Your task to perform on an android device: Open Maps and search for coffee Image 0: 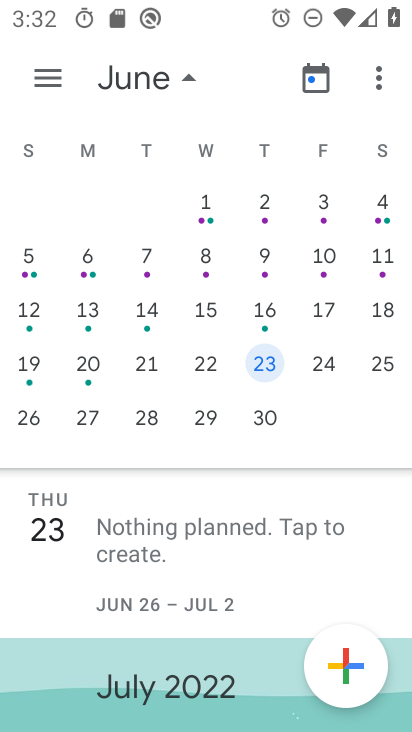
Step 0: drag from (199, 535) to (318, 360)
Your task to perform on an android device: Open Maps and search for coffee Image 1: 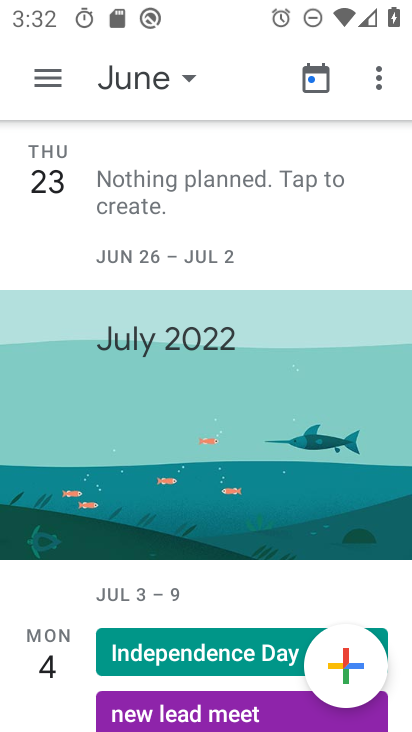
Step 1: drag from (223, 608) to (386, 102)
Your task to perform on an android device: Open Maps and search for coffee Image 2: 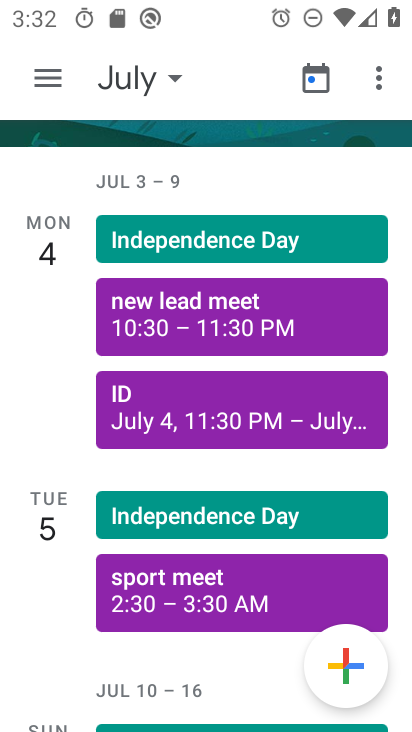
Step 2: drag from (176, 645) to (265, 255)
Your task to perform on an android device: Open Maps and search for coffee Image 3: 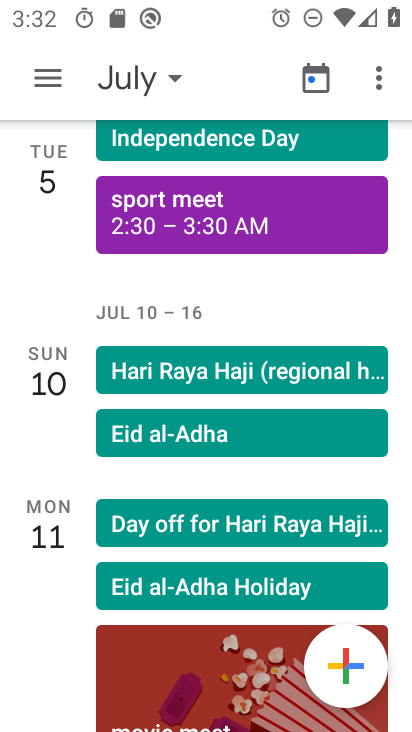
Step 3: press home button
Your task to perform on an android device: Open Maps and search for coffee Image 4: 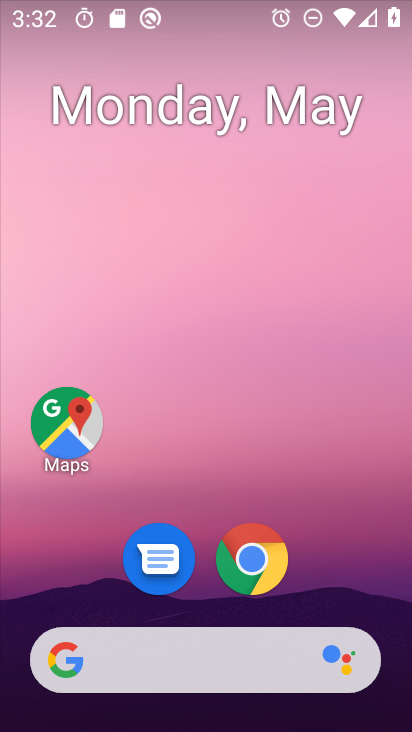
Step 4: drag from (205, 606) to (278, 174)
Your task to perform on an android device: Open Maps and search for coffee Image 5: 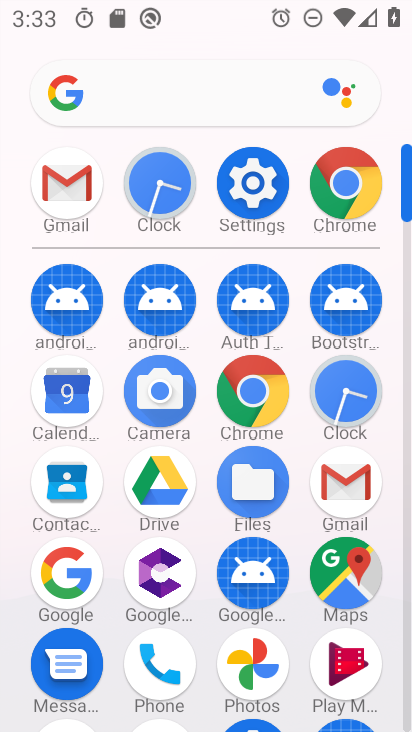
Step 5: drag from (208, 619) to (200, 133)
Your task to perform on an android device: Open Maps and search for coffee Image 6: 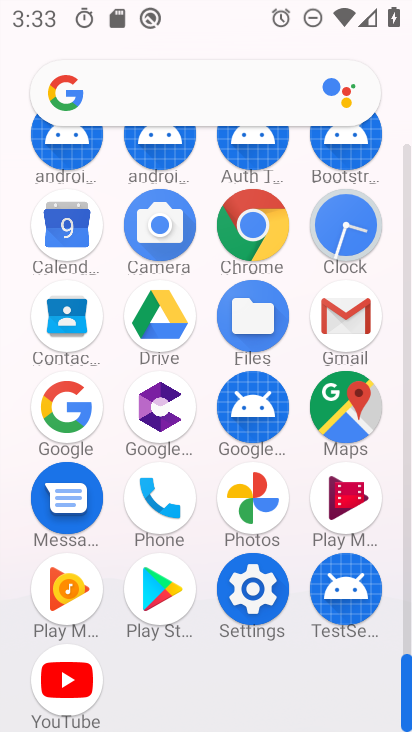
Step 6: click (348, 410)
Your task to perform on an android device: Open Maps and search for coffee Image 7: 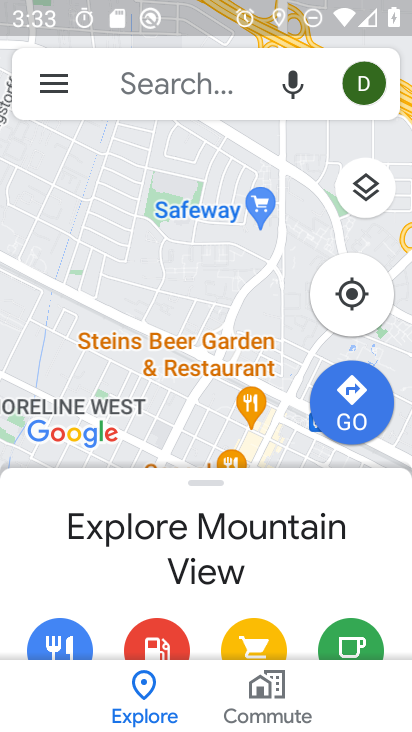
Step 7: drag from (245, 584) to (323, 147)
Your task to perform on an android device: Open Maps and search for coffee Image 8: 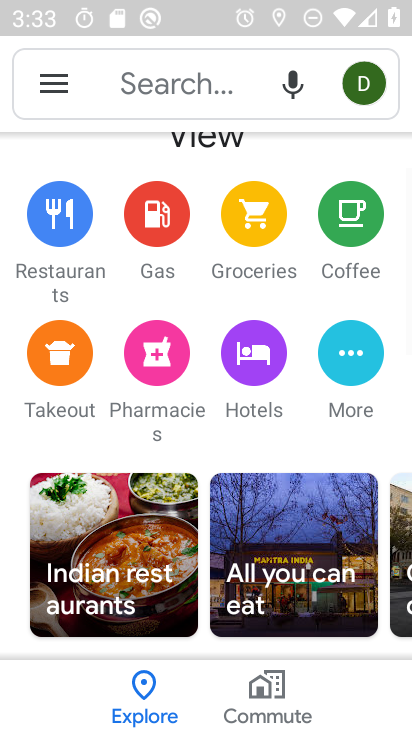
Step 8: click (172, 89)
Your task to perform on an android device: Open Maps and search for coffee Image 9: 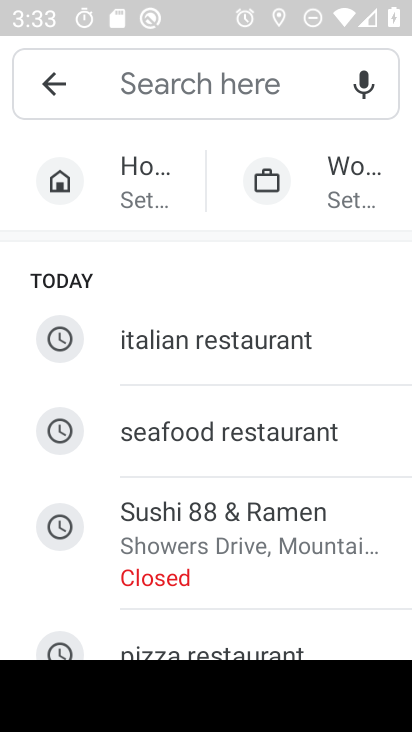
Step 9: drag from (223, 585) to (262, 252)
Your task to perform on an android device: Open Maps and search for coffee Image 10: 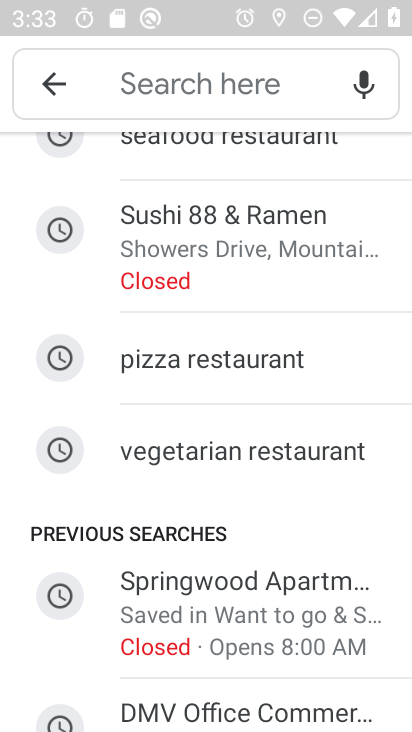
Step 10: drag from (206, 530) to (229, 187)
Your task to perform on an android device: Open Maps and search for coffee Image 11: 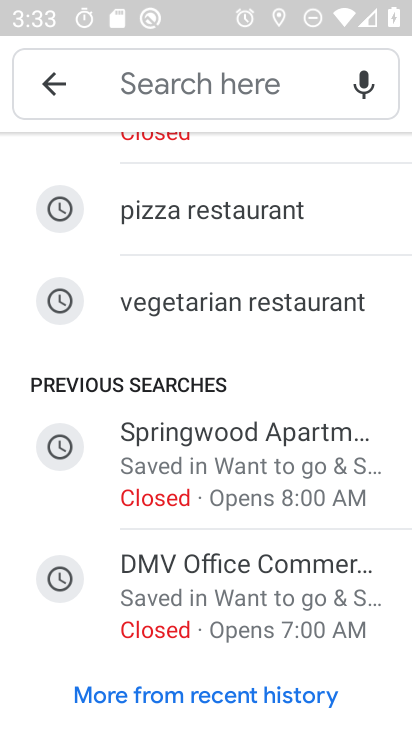
Step 11: drag from (256, 615) to (252, 362)
Your task to perform on an android device: Open Maps and search for coffee Image 12: 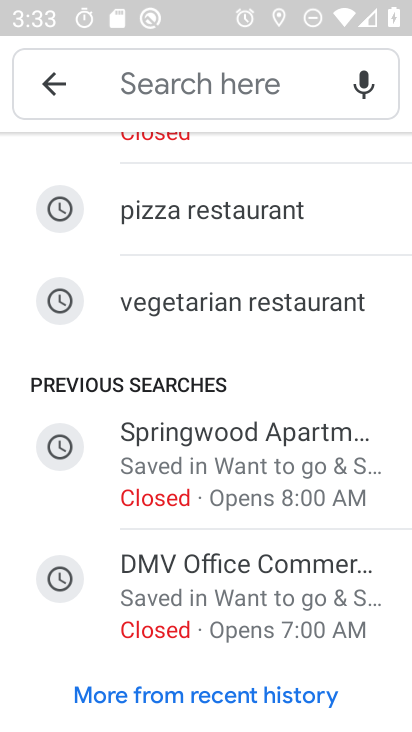
Step 12: drag from (289, 342) to (309, 214)
Your task to perform on an android device: Open Maps and search for coffee Image 13: 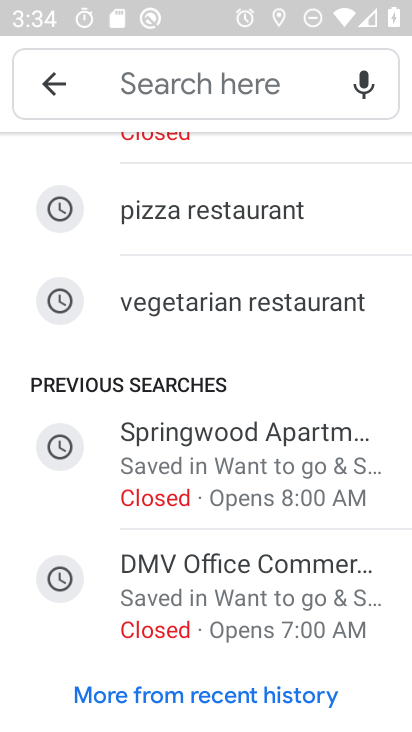
Step 13: drag from (213, 648) to (278, 212)
Your task to perform on an android device: Open Maps and search for coffee Image 14: 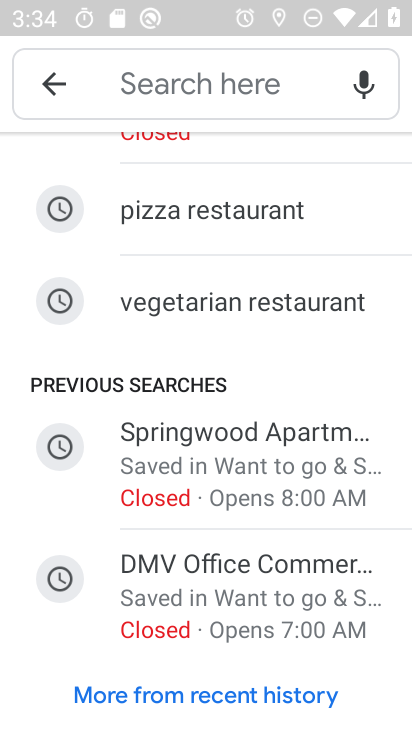
Step 14: drag from (250, 530) to (250, 268)
Your task to perform on an android device: Open Maps and search for coffee Image 15: 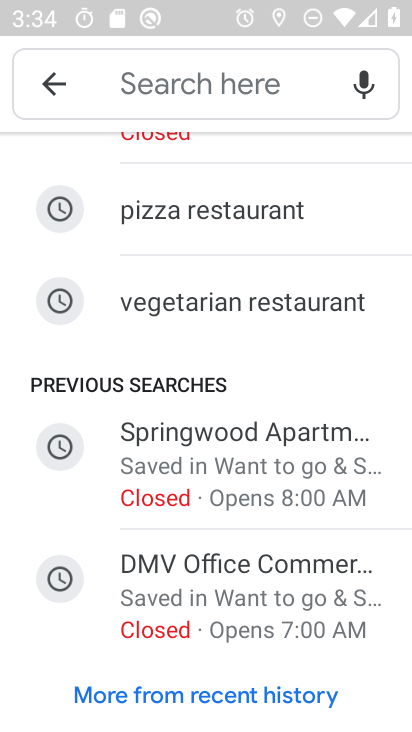
Step 15: drag from (264, 319) to (313, 711)
Your task to perform on an android device: Open Maps and search for coffee Image 16: 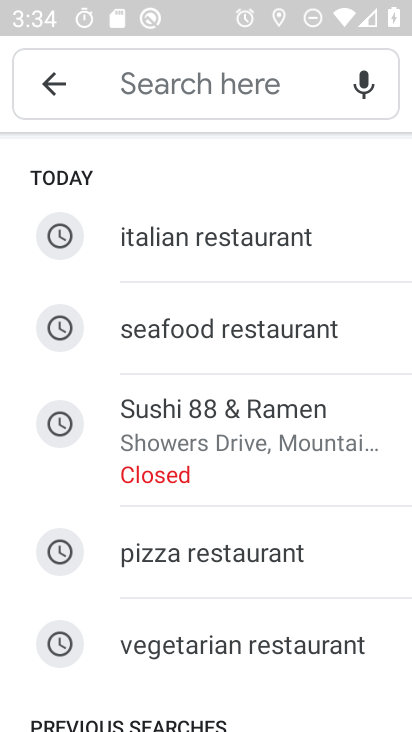
Step 16: drag from (260, 291) to (307, 725)
Your task to perform on an android device: Open Maps and search for coffee Image 17: 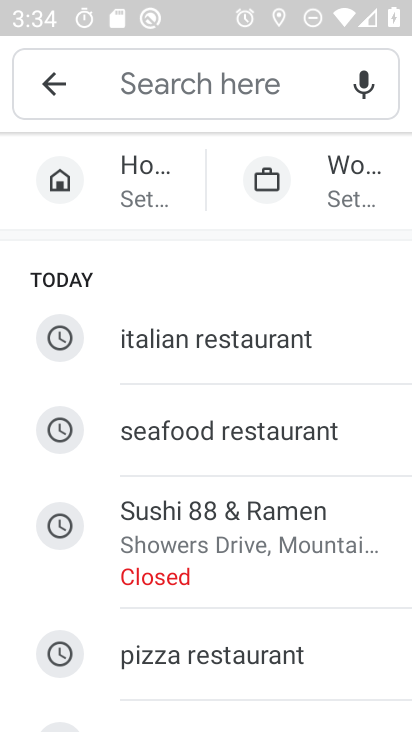
Step 17: click (183, 78)
Your task to perform on an android device: Open Maps and search for coffee Image 18: 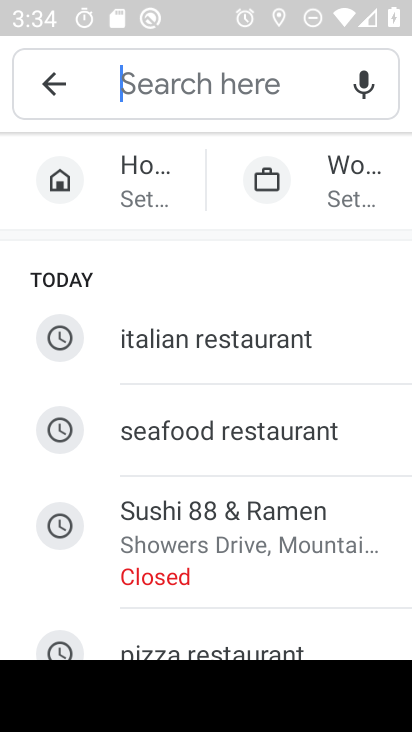
Step 18: type "coffee"
Your task to perform on an android device: Open Maps and search for coffee Image 19: 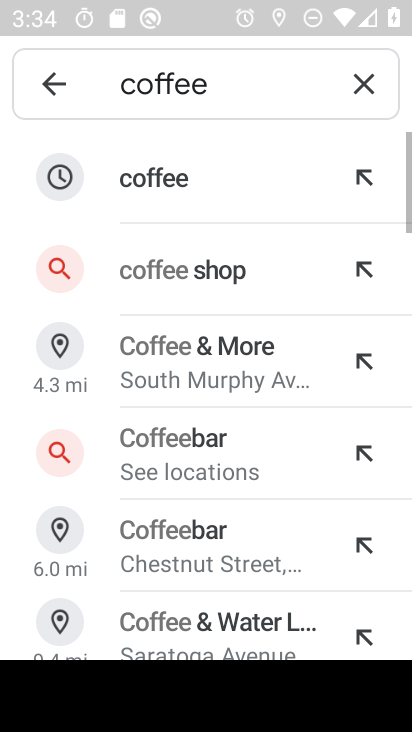
Step 19: click (136, 136)
Your task to perform on an android device: Open Maps and search for coffee Image 20: 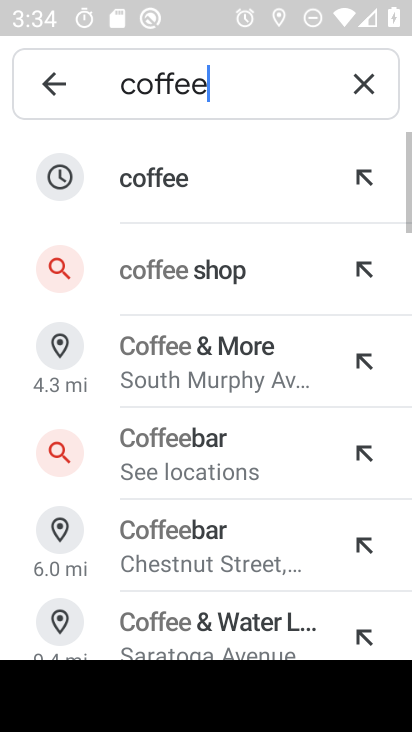
Step 20: click (167, 182)
Your task to perform on an android device: Open Maps and search for coffee Image 21: 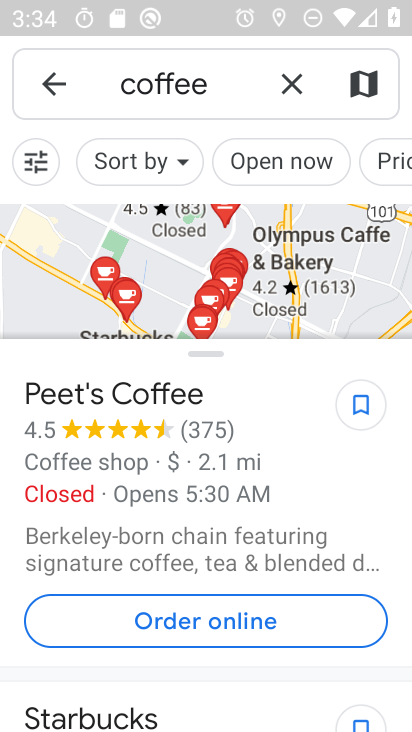
Step 21: task complete